Your task to perform on an android device: Open wifi settings Image 0: 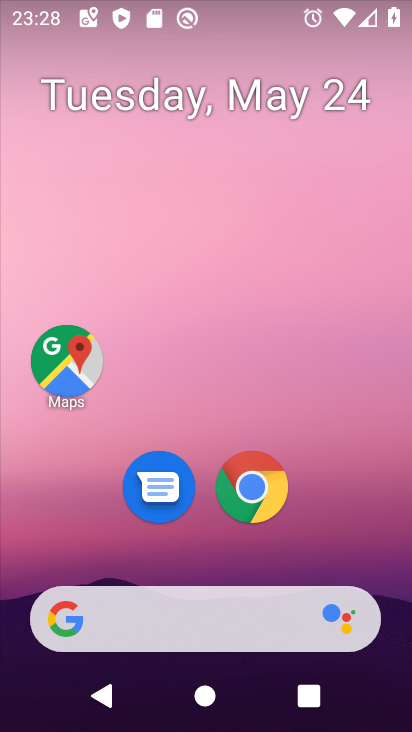
Step 0: drag from (148, 521) to (207, 320)
Your task to perform on an android device: Open wifi settings Image 1: 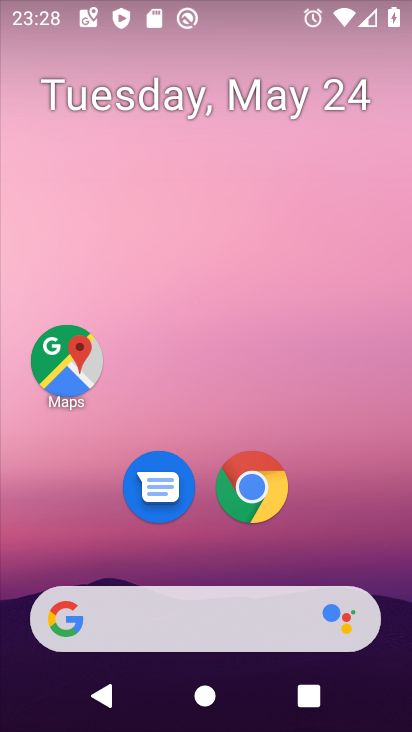
Step 1: drag from (89, 15) to (102, 463)
Your task to perform on an android device: Open wifi settings Image 2: 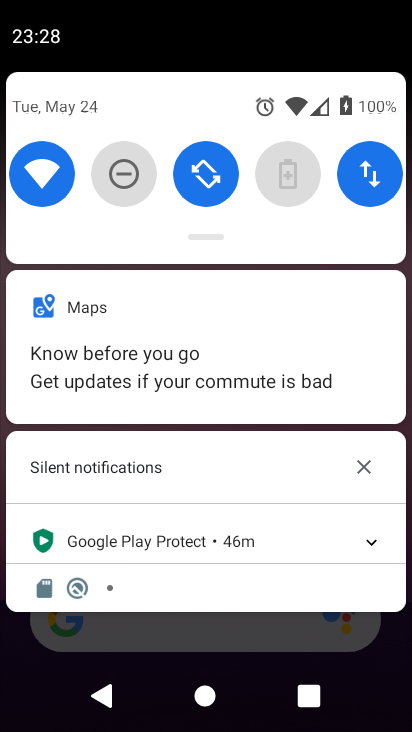
Step 2: click (40, 160)
Your task to perform on an android device: Open wifi settings Image 3: 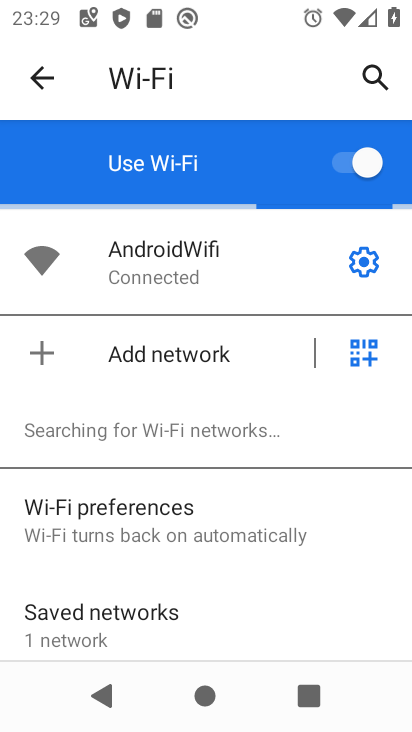
Step 3: task complete